Your task to perform on an android device: turn on location history Image 0: 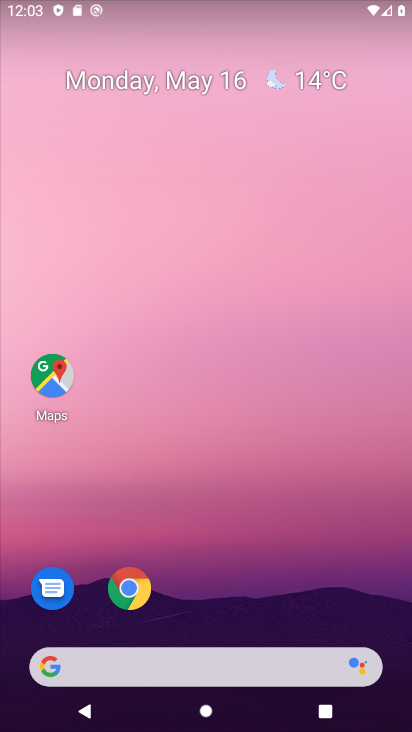
Step 0: drag from (201, 633) to (287, 163)
Your task to perform on an android device: turn on location history Image 1: 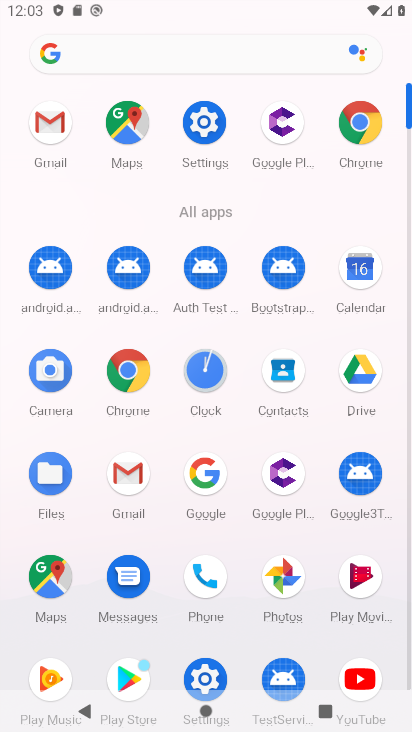
Step 1: click (207, 122)
Your task to perform on an android device: turn on location history Image 2: 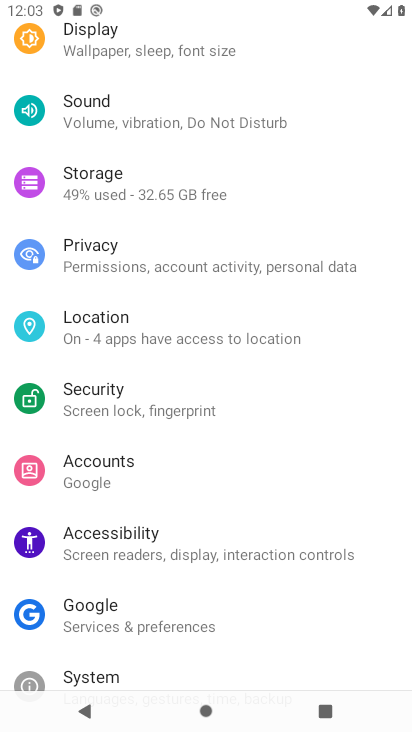
Step 2: click (165, 336)
Your task to perform on an android device: turn on location history Image 3: 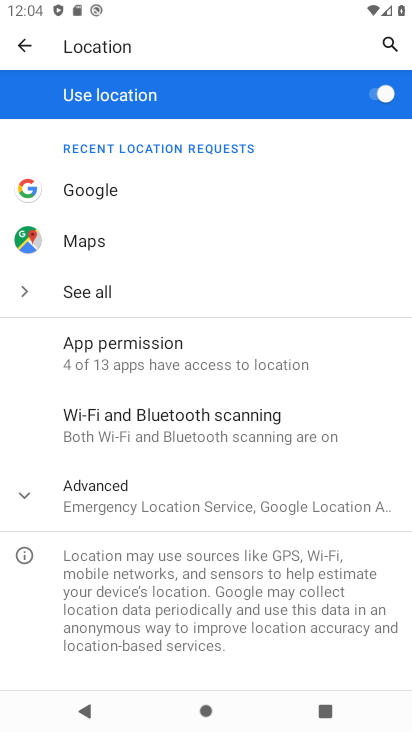
Step 3: task complete